Your task to perform on an android device: turn pop-ups on in chrome Image 0: 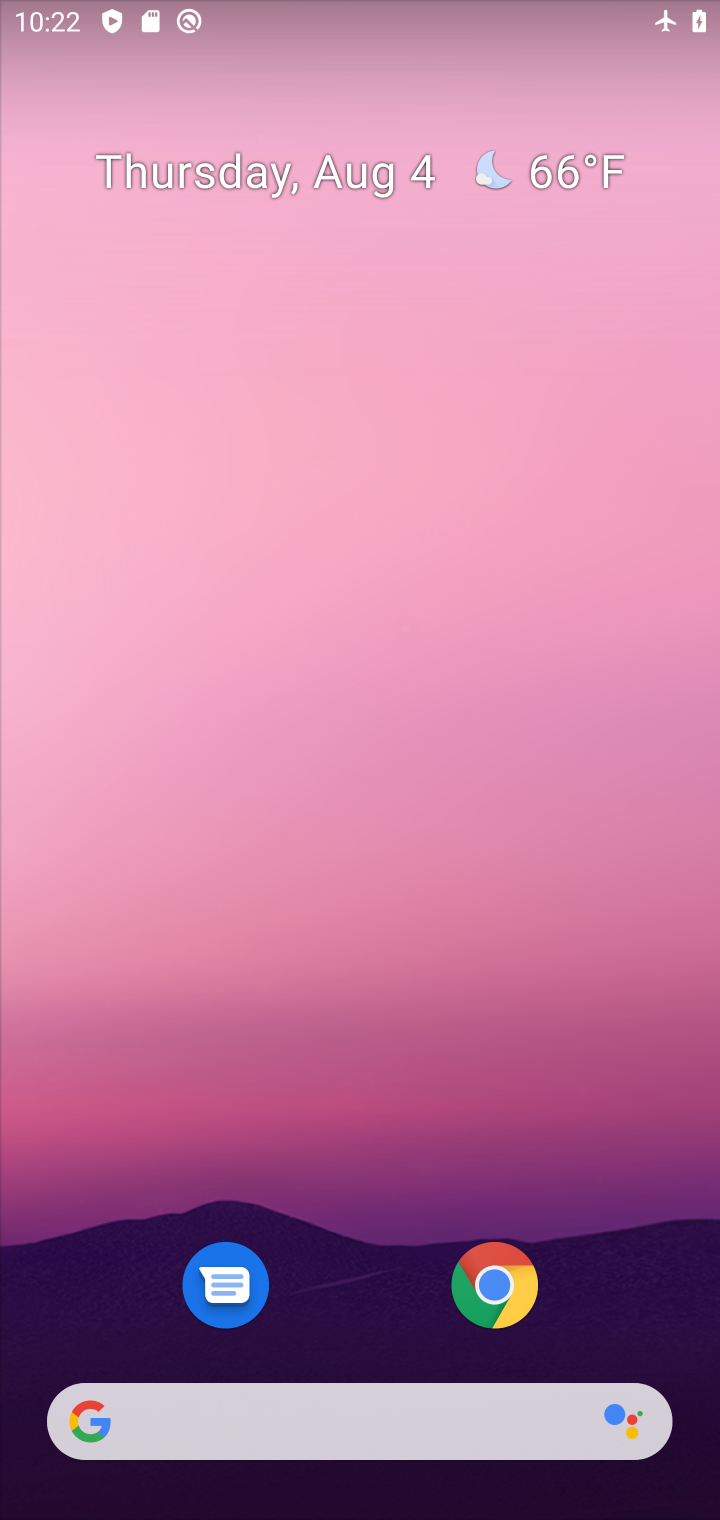
Step 0: drag from (412, 1285) to (530, 74)
Your task to perform on an android device: turn pop-ups on in chrome Image 1: 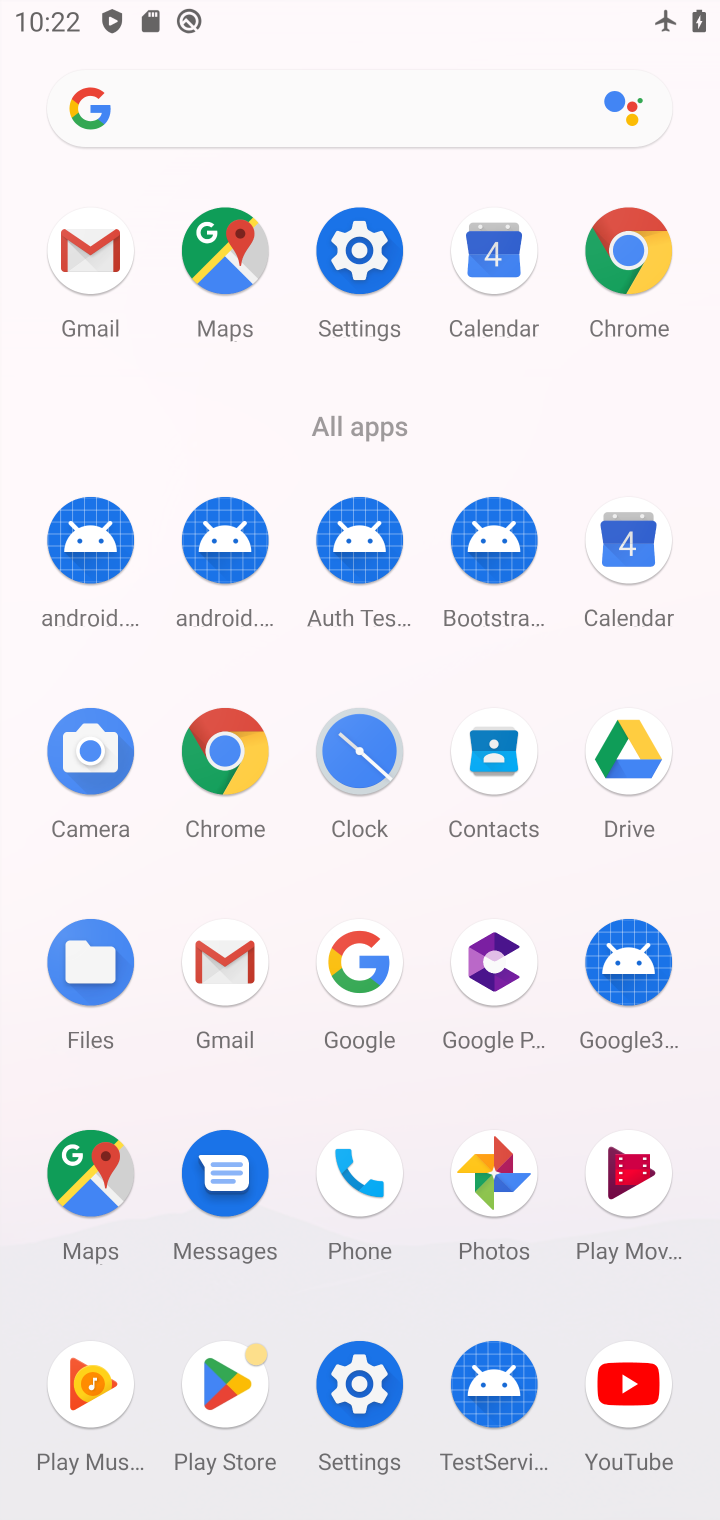
Step 1: click (234, 748)
Your task to perform on an android device: turn pop-ups on in chrome Image 2: 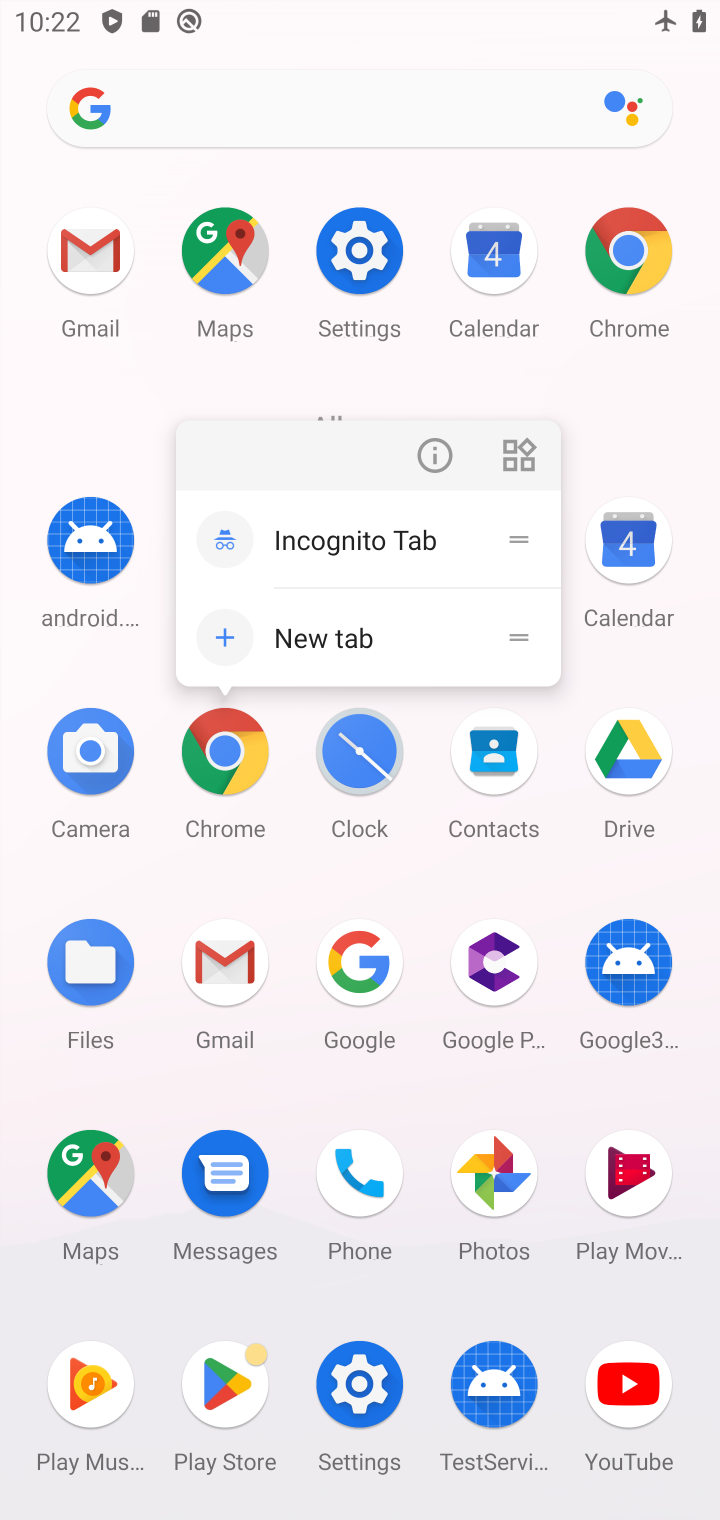
Step 2: click (222, 750)
Your task to perform on an android device: turn pop-ups on in chrome Image 3: 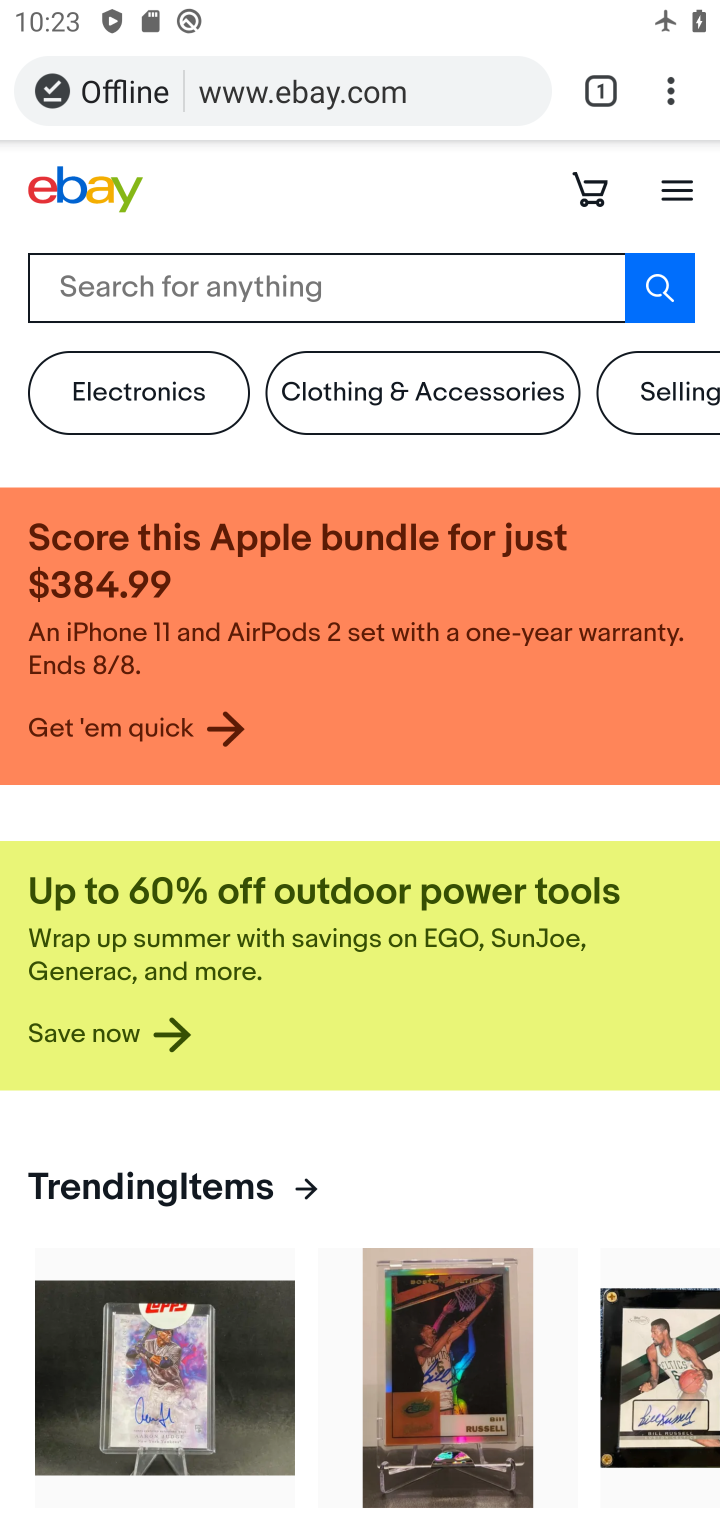
Step 3: drag from (672, 93) to (346, 1129)
Your task to perform on an android device: turn pop-ups on in chrome Image 4: 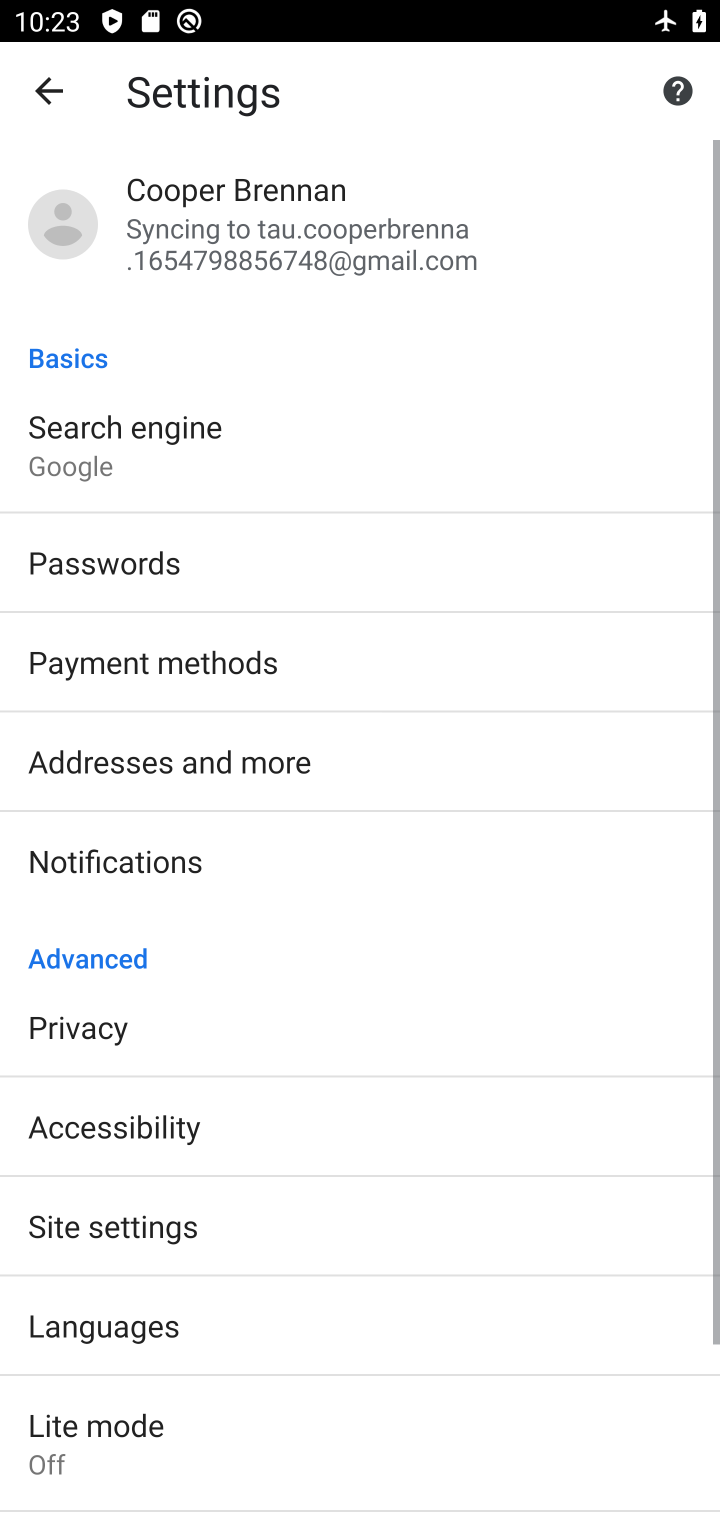
Step 4: drag from (417, 1336) to (454, 538)
Your task to perform on an android device: turn pop-ups on in chrome Image 5: 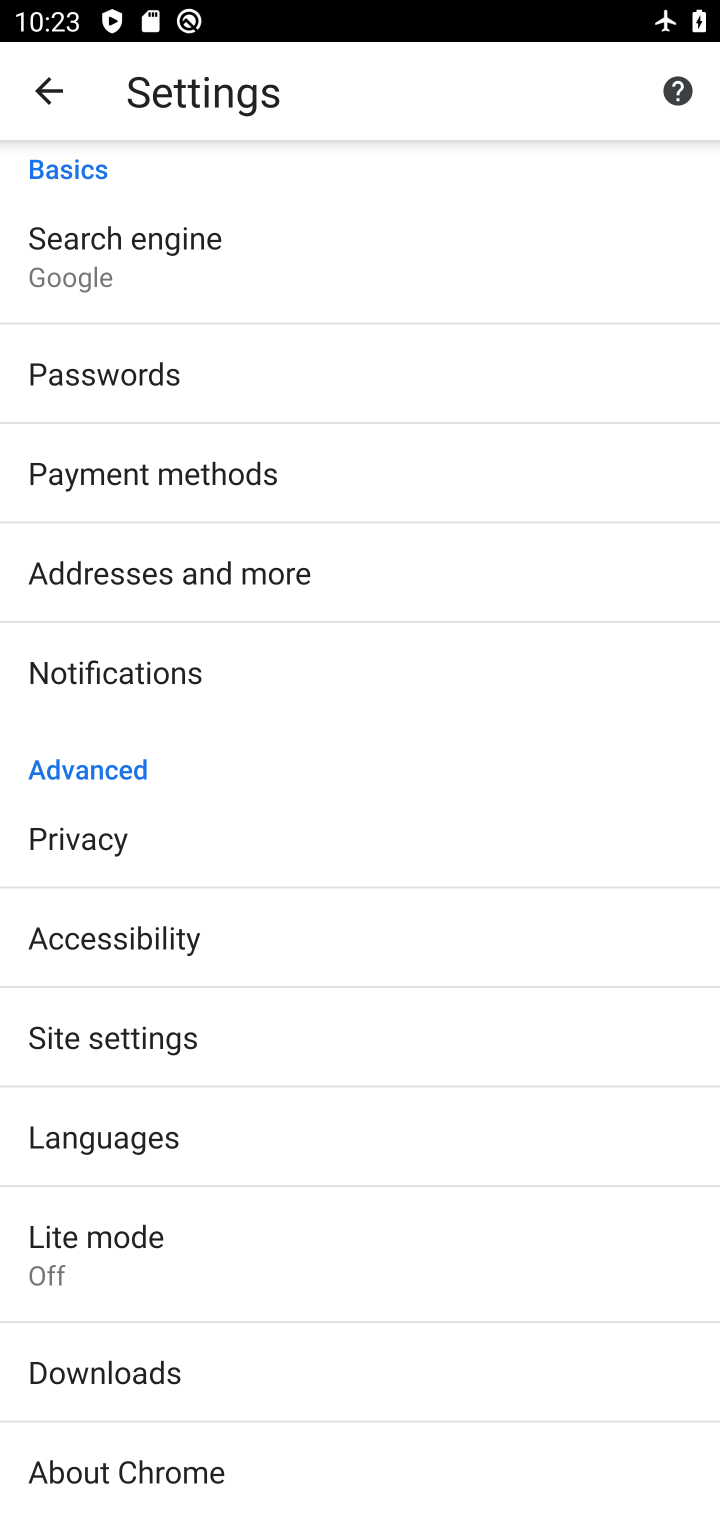
Step 5: click (126, 1041)
Your task to perform on an android device: turn pop-ups on in chrome Image 6: 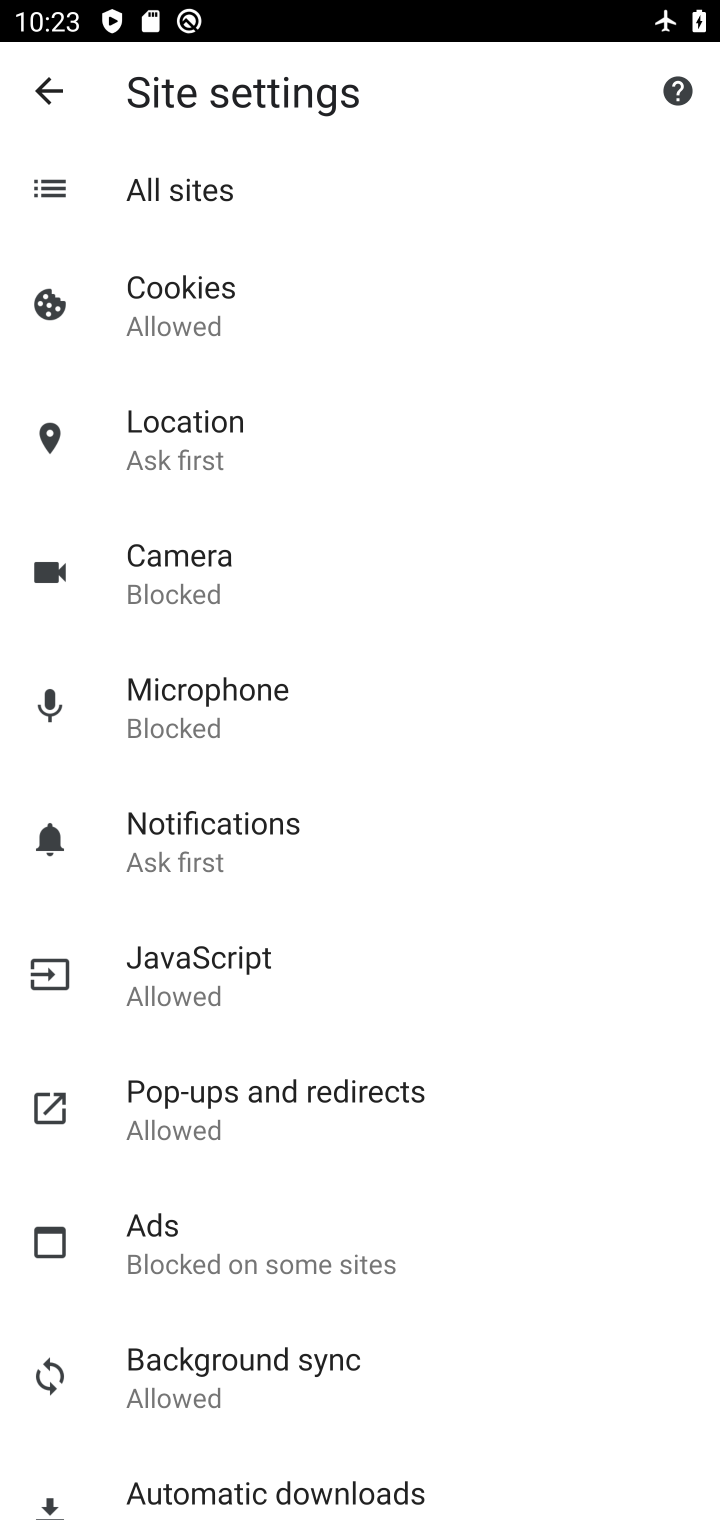
Step 6: click (268, 1096)
Your task to perform on an android device: turn pop-ups on in chrome Image 7: 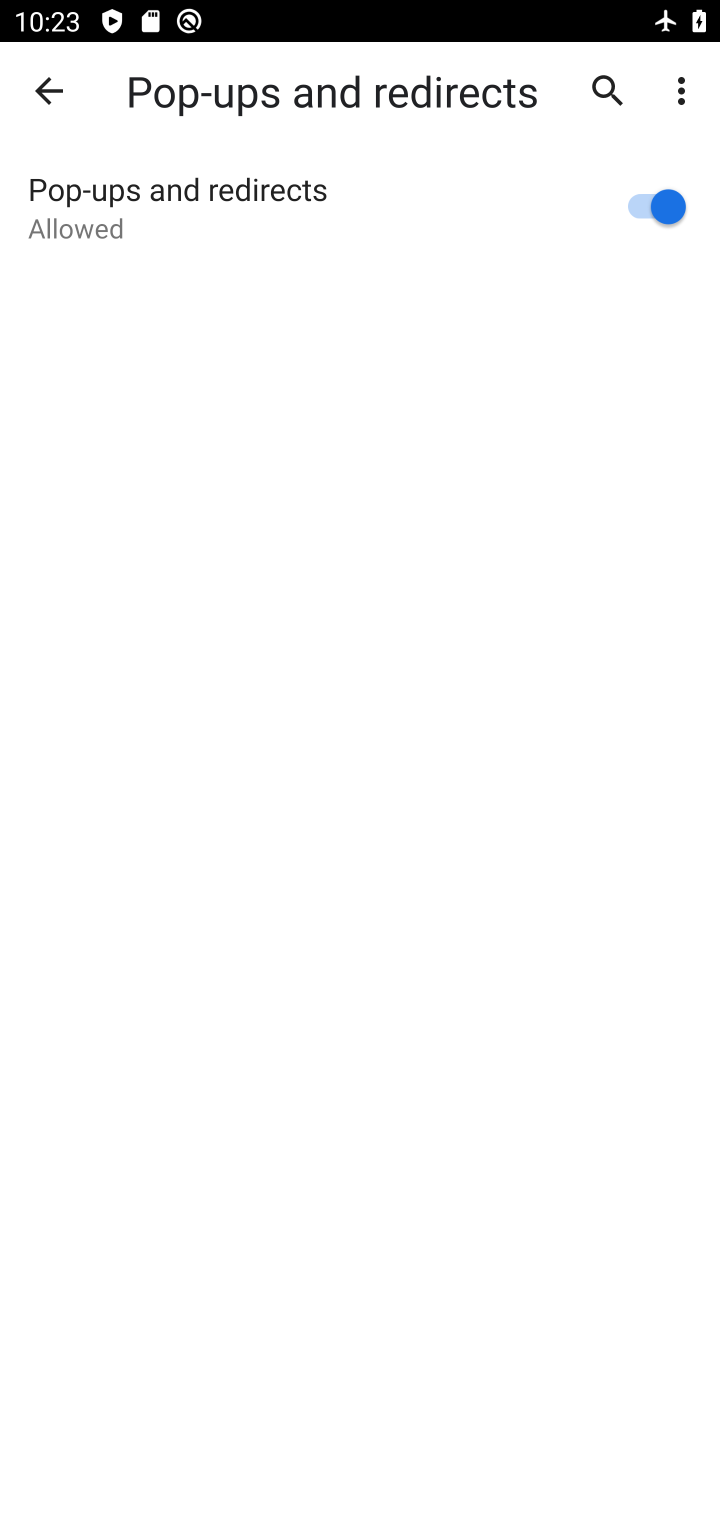
Step 7: task complete